Your task to perform on an android device: open a bookmark in the chrome app Image 0: 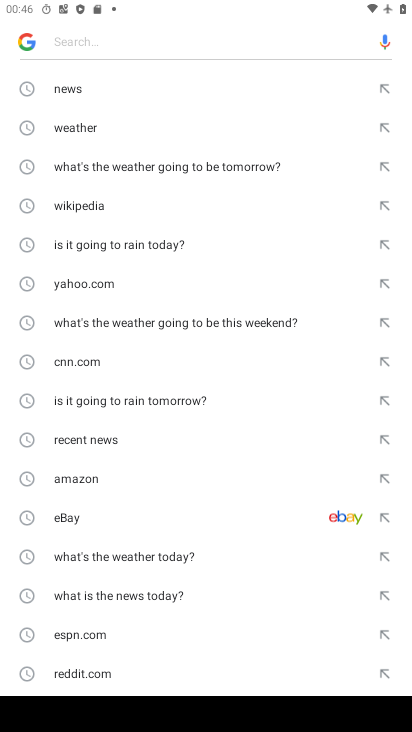
Step 0: press home button
Your task to perform on an android device: open a bookmark in the chrome app Image 1: 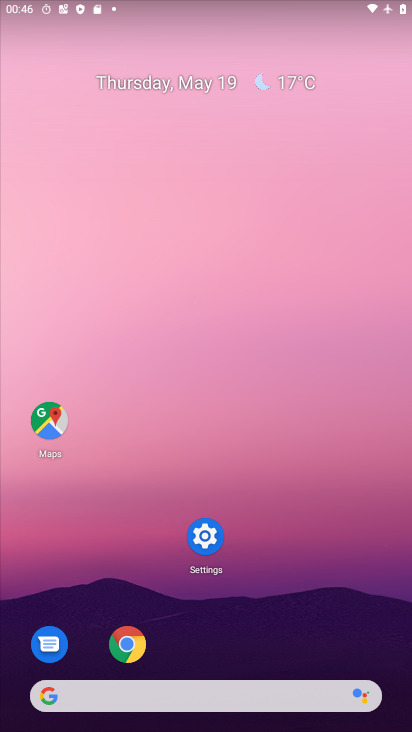
Step 1: click (116, 638)
Your task to perform on an android device: open a bookmark in the chrome app Image 2: 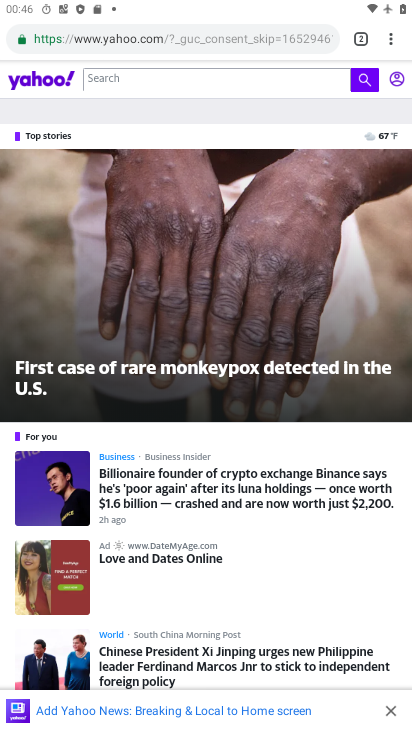
Step 2: task complete